Your task to perform on an android device: Go to ESPN.com Image 0: 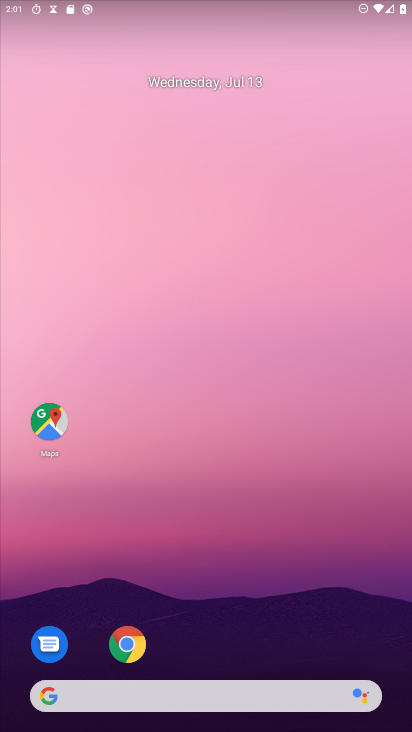
Step 0: click (225, 690)
Your task to perform on an android device: Go to ESPN.com Image 1: 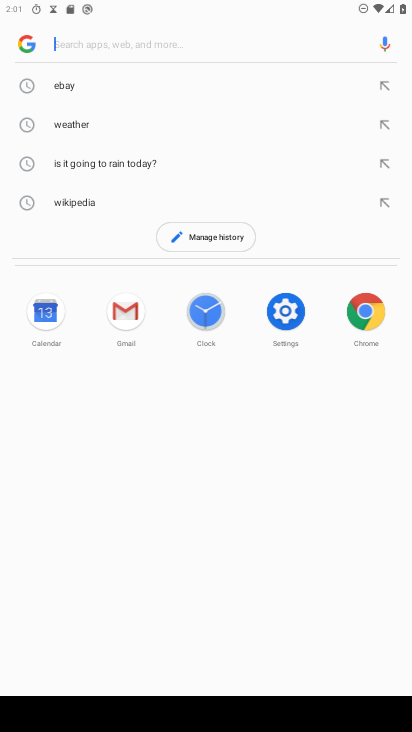
Step 1: type "ESPN.com"
Your task to perform on an android device: Go to ESPN.com Image 2: 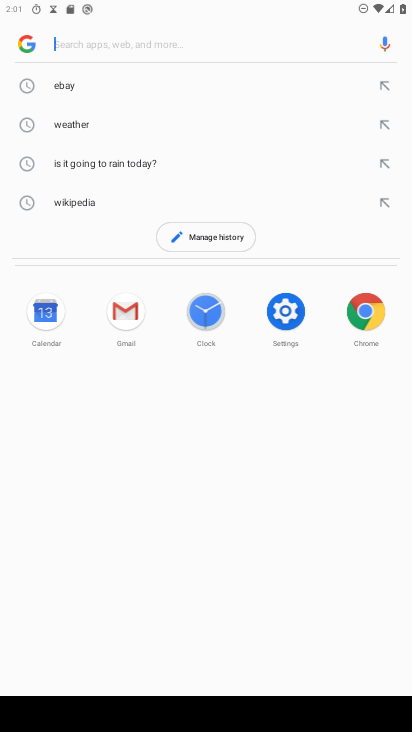
Step 2: click (111, 37)
Your task to perform on an android device: Go to ESPN.com Image 3: 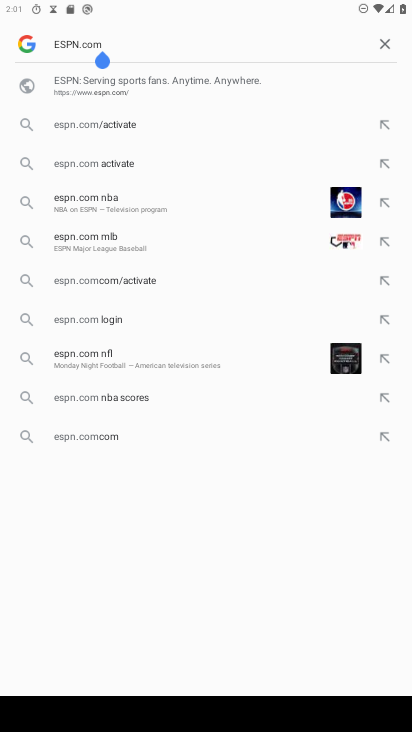
Step 3: press enter
Your task to perform on an android device: Go to ESPN.com Image 4: 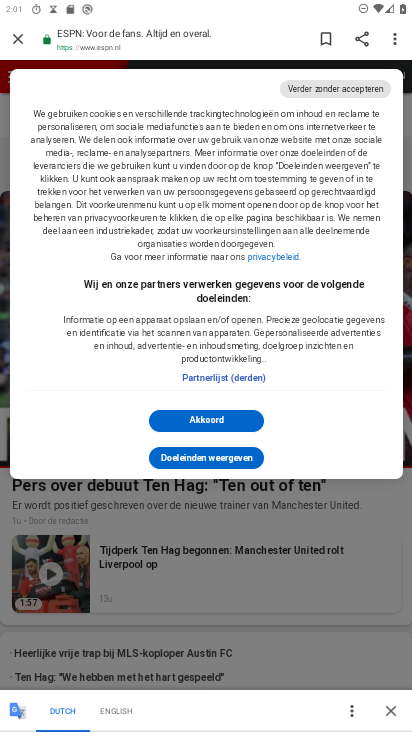
Step 4: task complete